Your task to perform on an android device: turn on airplane mode Image 0: 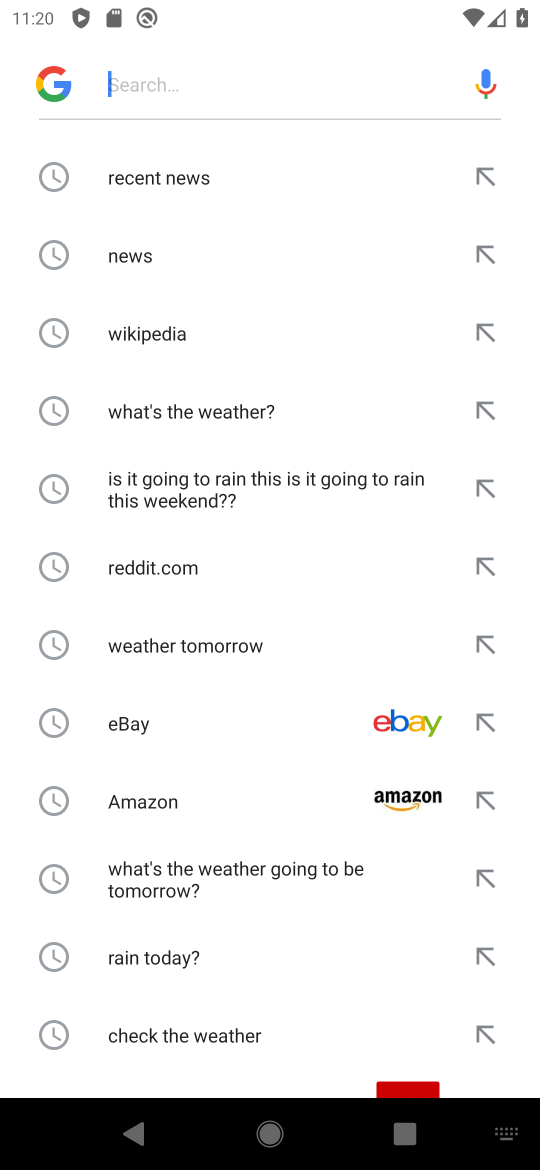
Step 0: press back button
Your task to perform on an android device: turn on airplane mode Image 1: 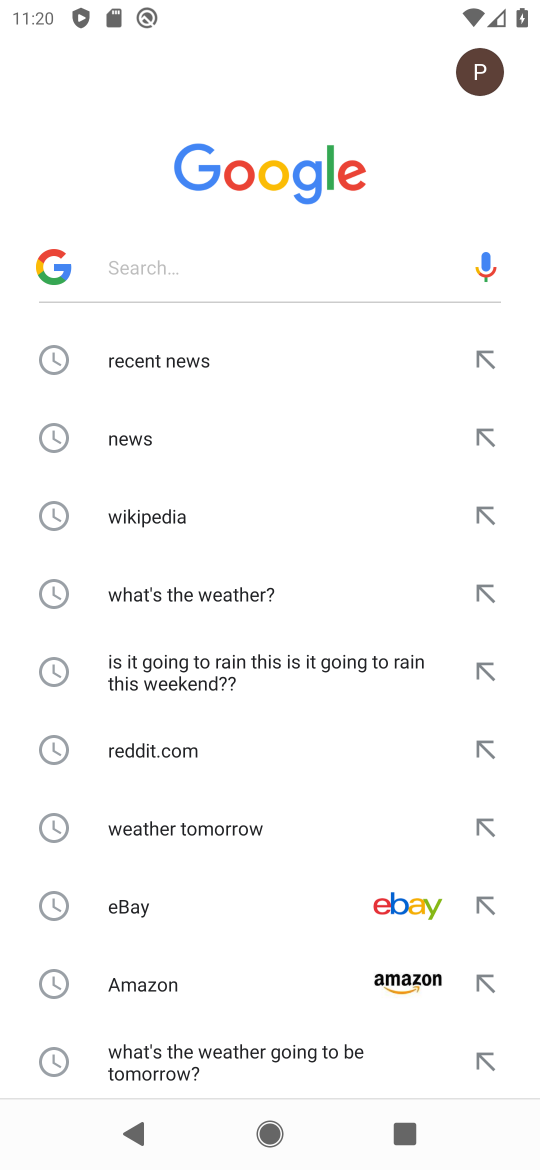
Step 1: press back button
Your task to perform on an android device: turn on airplane mode Image 2: 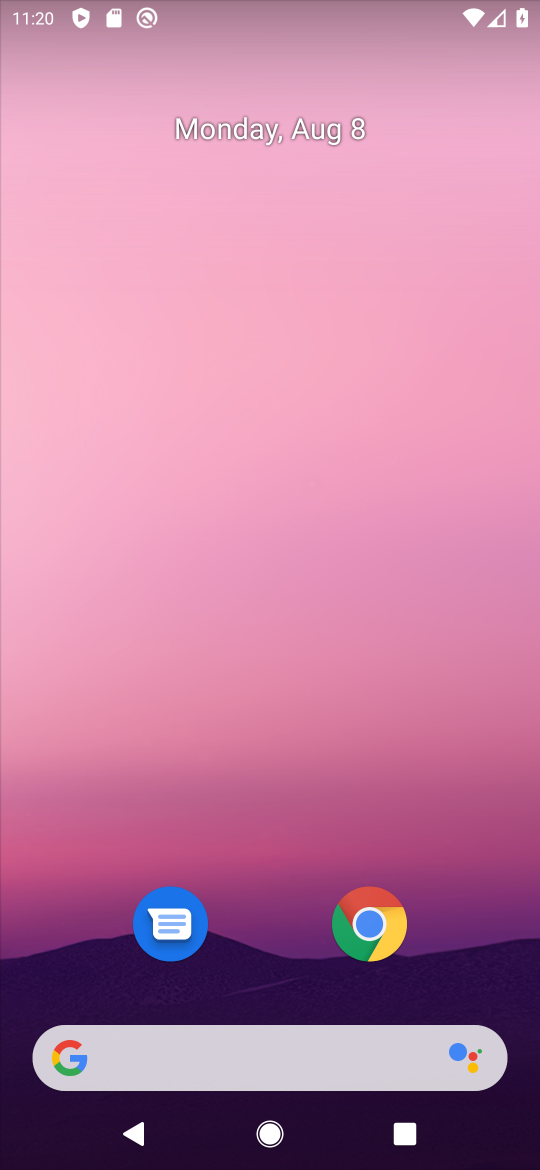
Step 2: drag from (288, 1006) to (199, 269)
Your task to perform on an android device: turn on airplane mode Image 3: 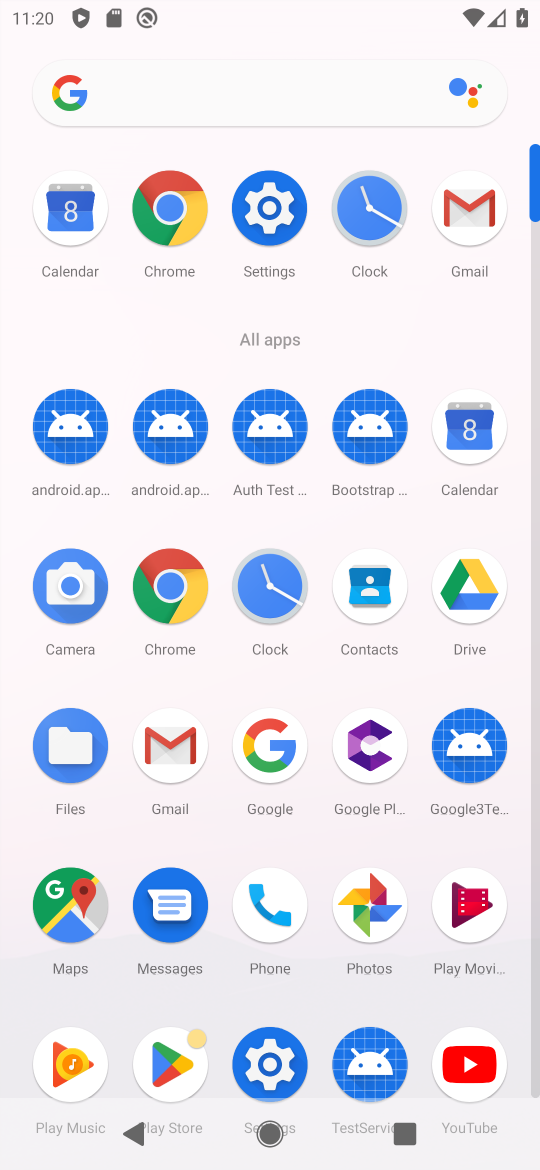
Step 3: click (257, 237)
Your task to perform on an android device: turn on airplane mode Image 4: 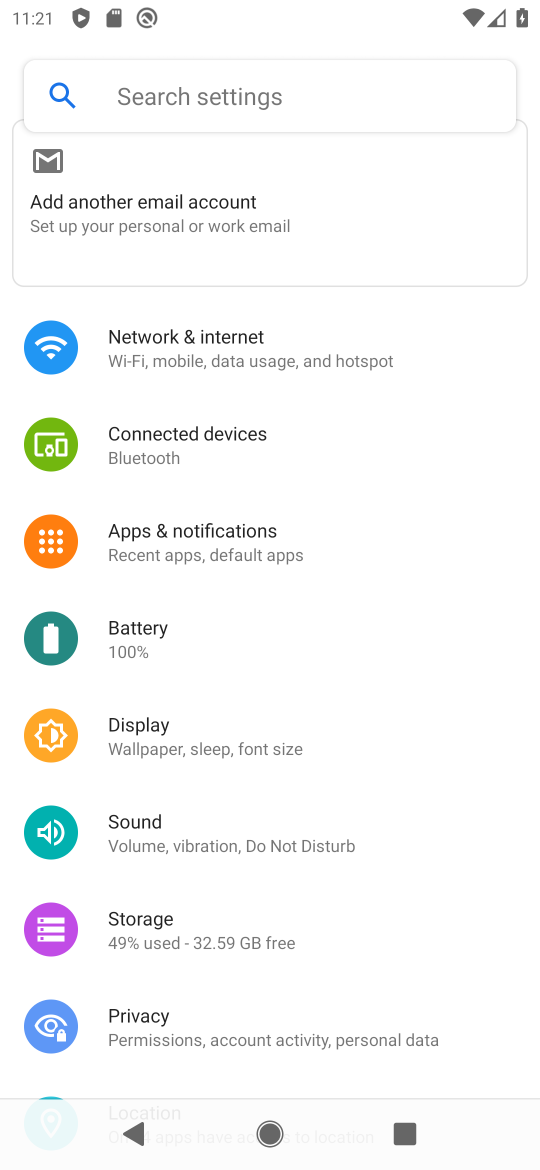
Step 4: click (246, 328)
Your task to perform on an android device: turn on airplane mode Image 5: 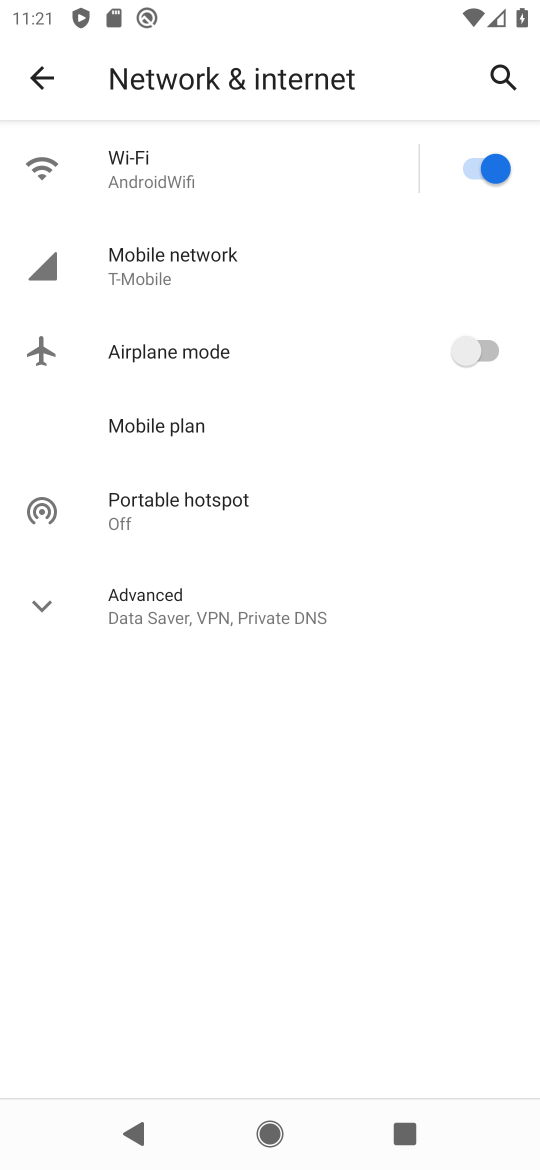
Step 5: click (479, 350)
Your task to perform on an android device: turn on airplane mode Image 6: 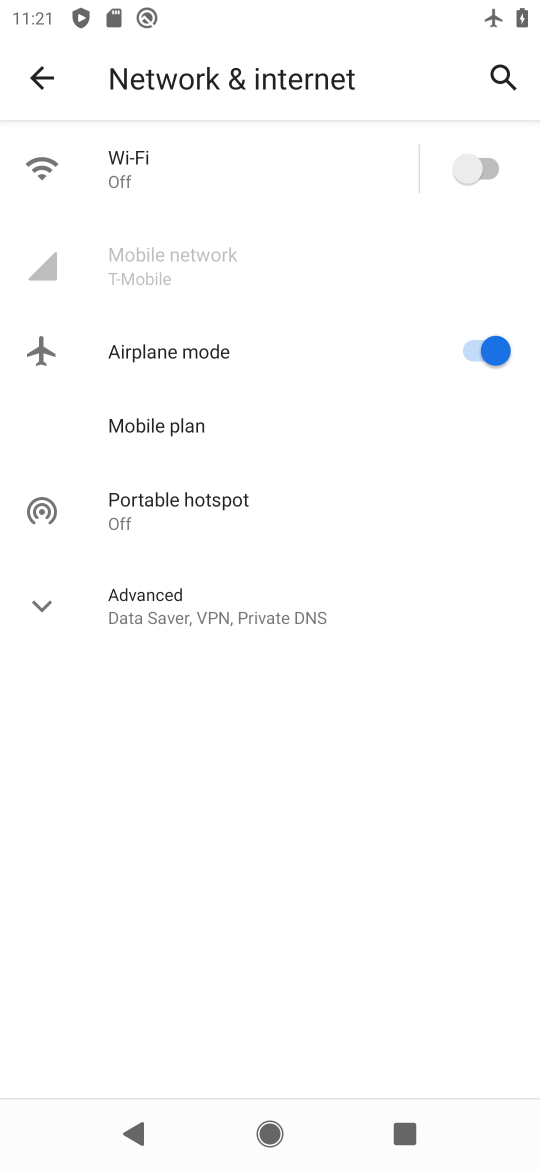
Step 6: task complete